Your task to perform on an android device: open app "Google Play services" Image 0: 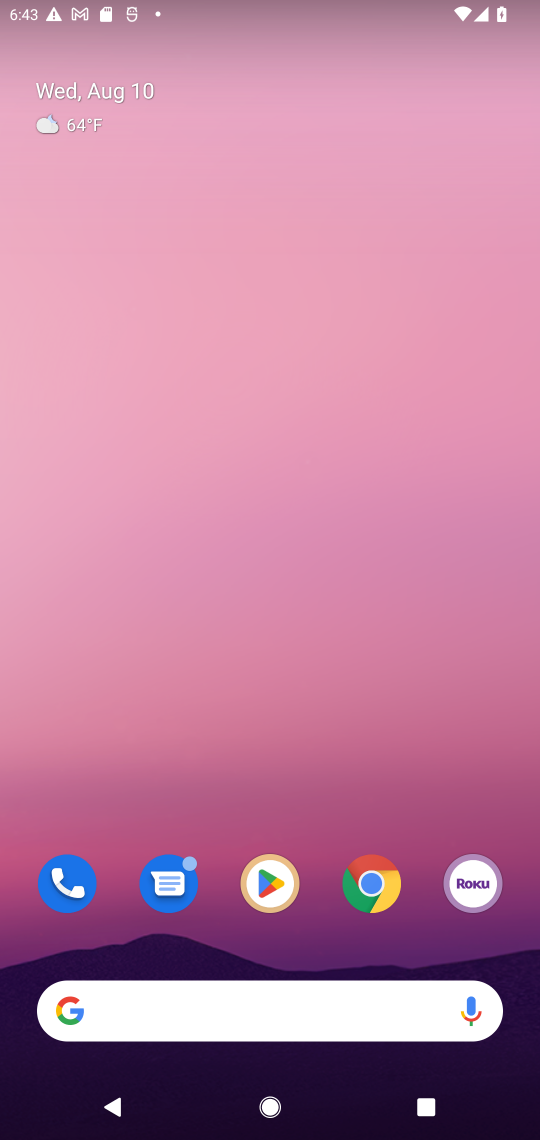
Step 0: click (280, 869)
Your task to perform on an android device: open app "Google Play services" Image 1: 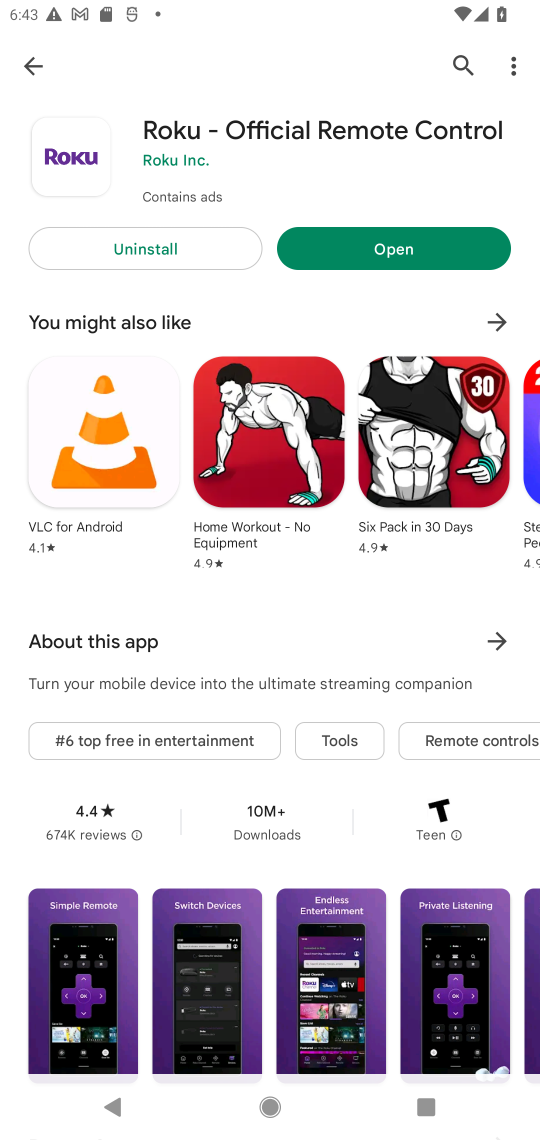
Step 1: click (458, 70)
Your task to perform on an android device: open app "Google Play services" Image 2: 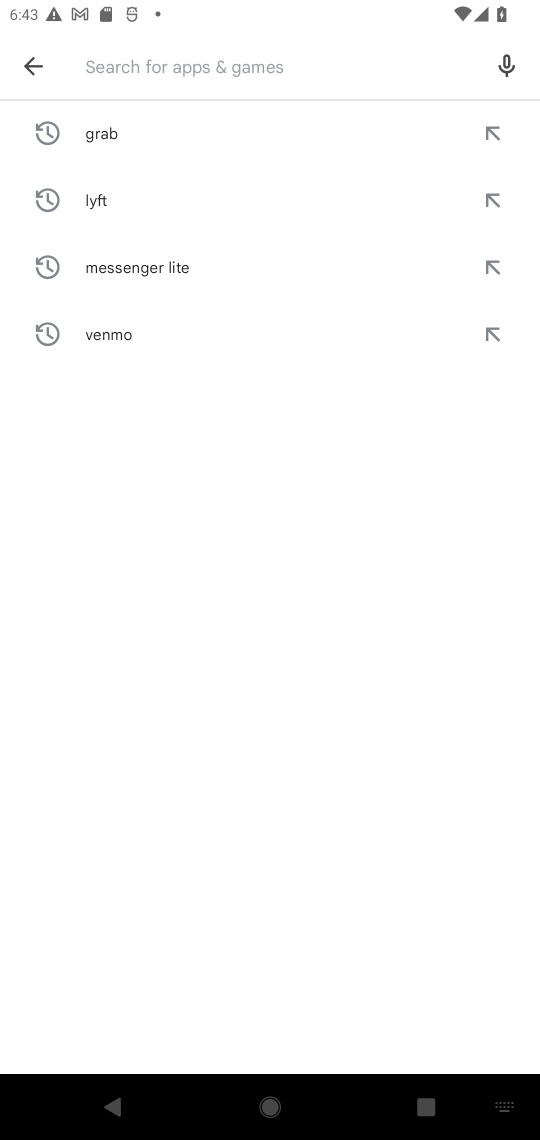
Step 2: click (256, 60)
Your task to perform on an android device: open app "Google Play services" Image 3: 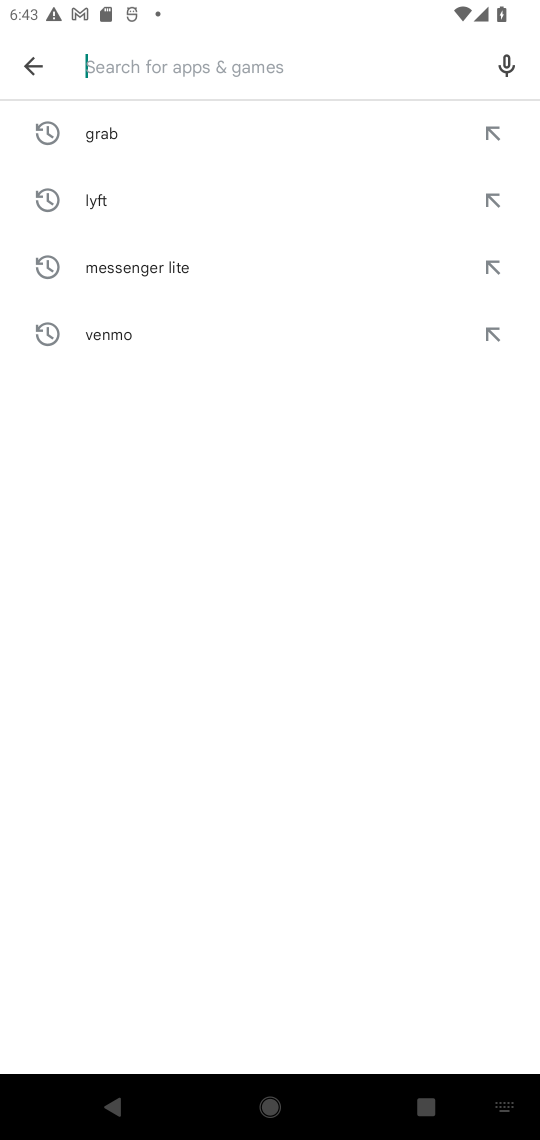
Step 3: type "Google Play services"
Your task to perform on an android device: open app "Google Play services" Image 4: 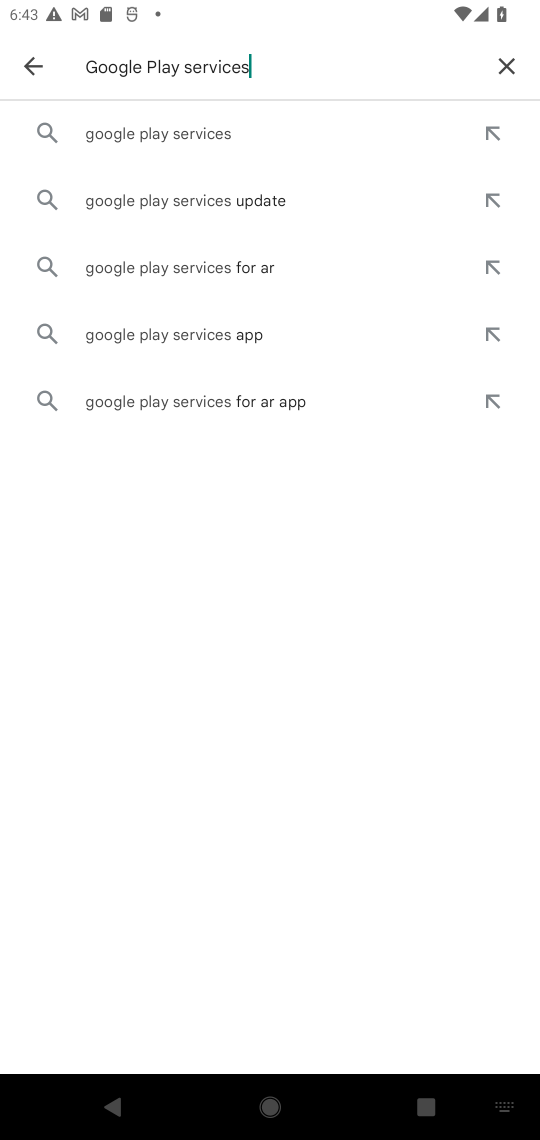
Step 4: click (251, 135)
Your task to perform on an android device: open app "Google Play services" Image 5: 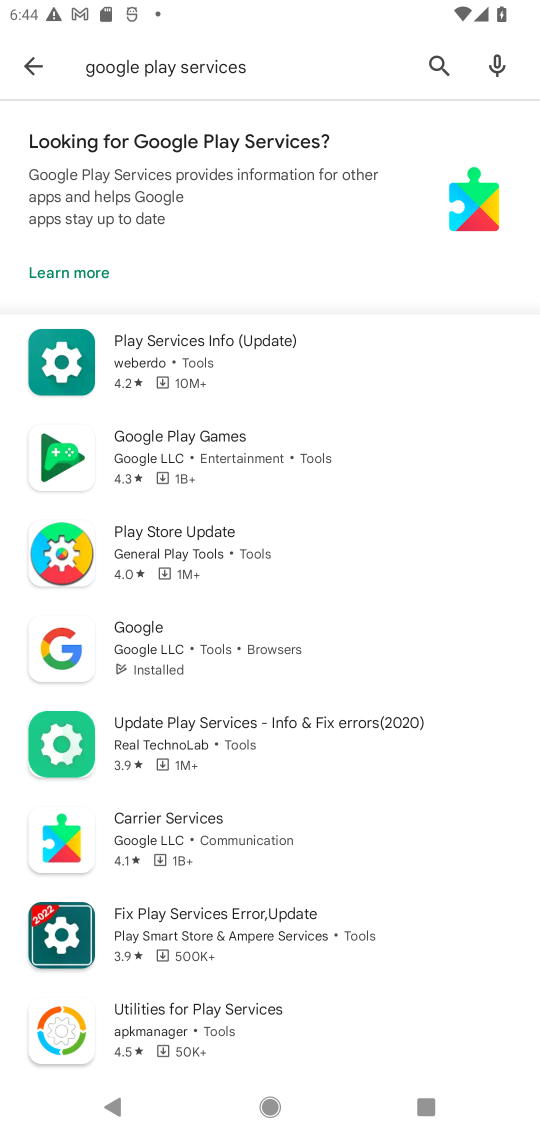
Step 5: click (237, 372)
Your task to perform on an android device: open app "Google Play services" Image 6: 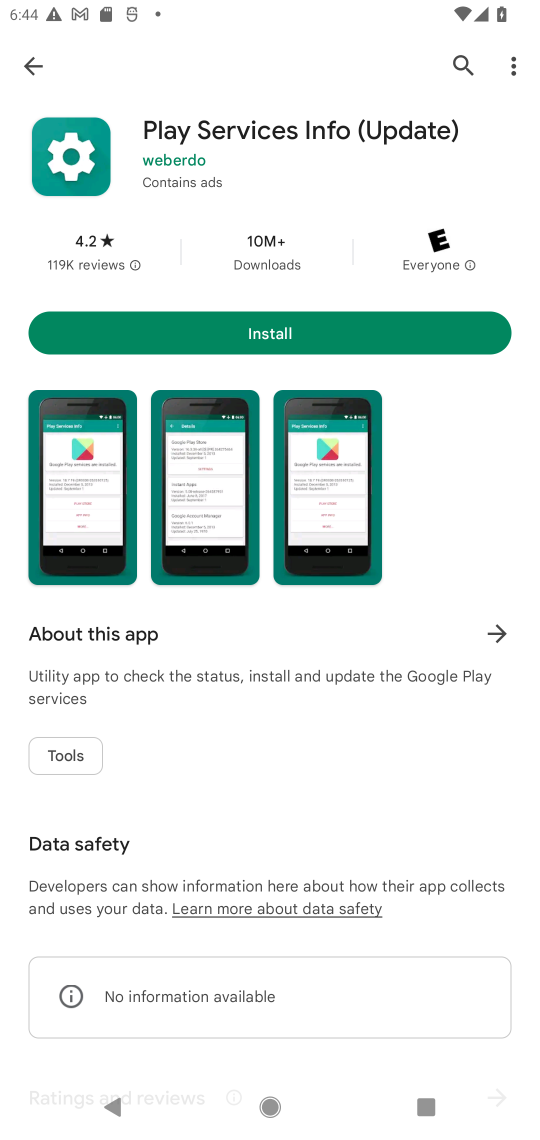
Step 6: task complete